Your task to perform on an android device: Open the map Image 0: 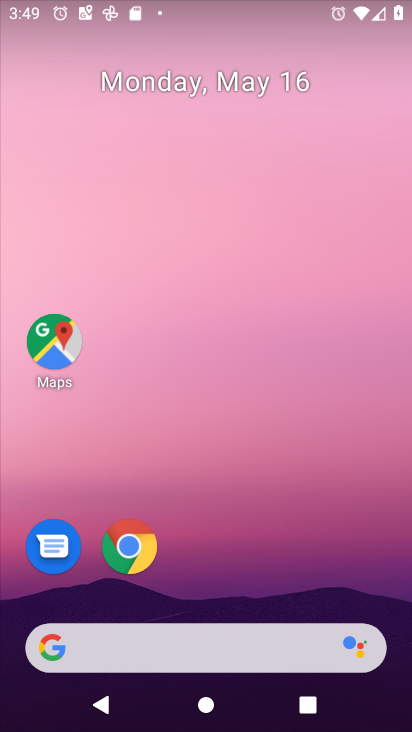
Step 0: drag from (378, 593) to (382, 180)
Your task to perform on an android device: Open the map Image 1: 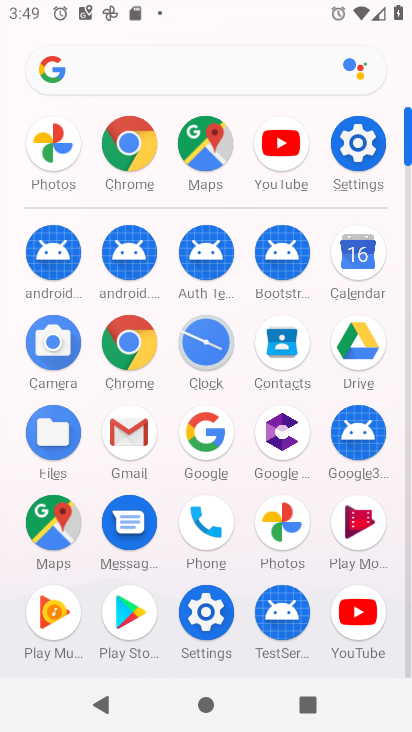
Step 1: click (59, 538)
Your task to perform on an android device: Open the map Image 2: 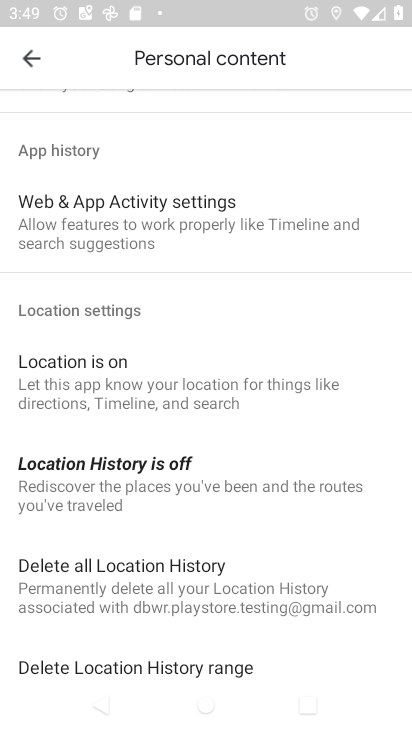
Step 2: click (37, 63)
Your task to perform on an android device: Open the map Image 3: 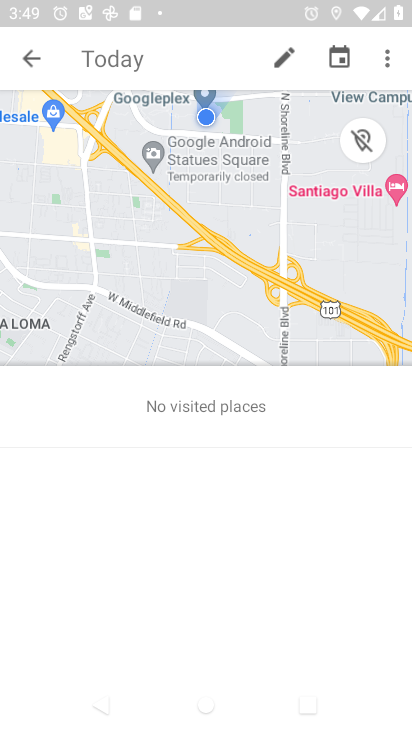
Step 3: click (37, 63)
Your task to perform on an android device: Open the map Image 4: 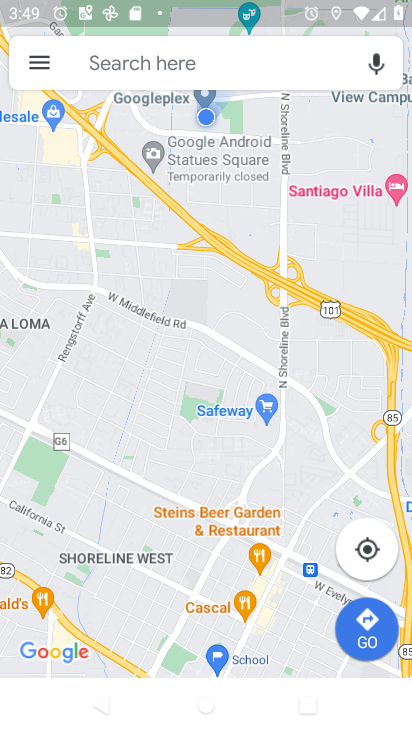
Step 4: task complete